Your task to perform on an android device: Go to location settings Image 0: 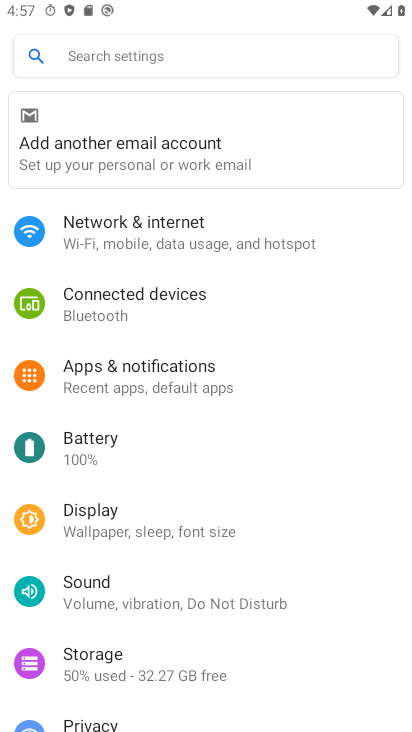
Step 0: drag from (135, 699) to (179, 344)
Your task to perform on an android device: Go to location settings Image 1: 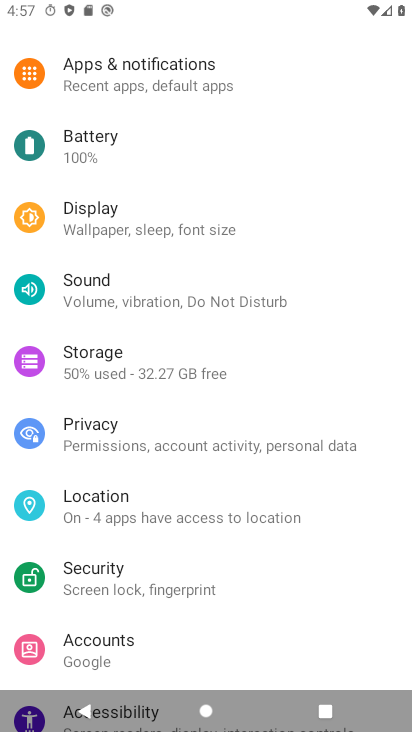
Step 1: click (116, 491)
Your task to perform on an android device: Go to location settings Image 2: 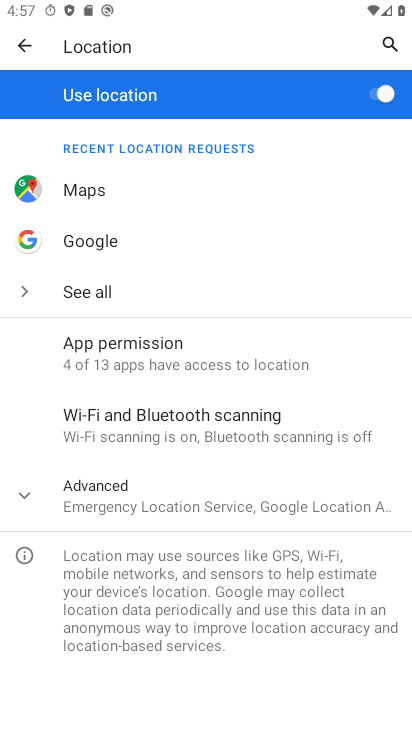
Step 2: click (123, 488)
Your task to perform on an android device: Go to location settings Image 3: 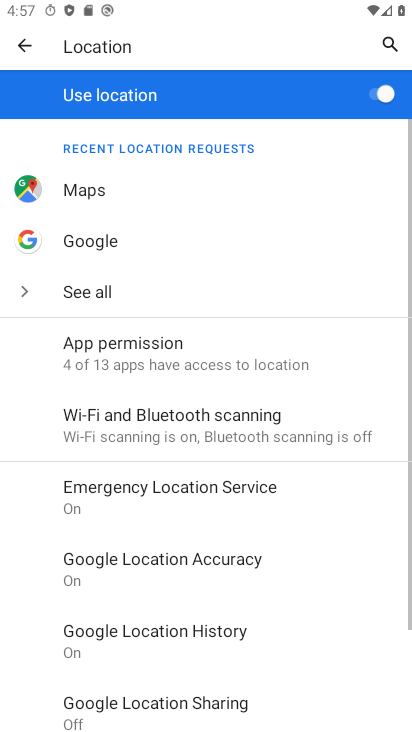
Step 3: task complete